Your task to perform on an android device: Add razer deathadder to the cart on newegg Image 0: 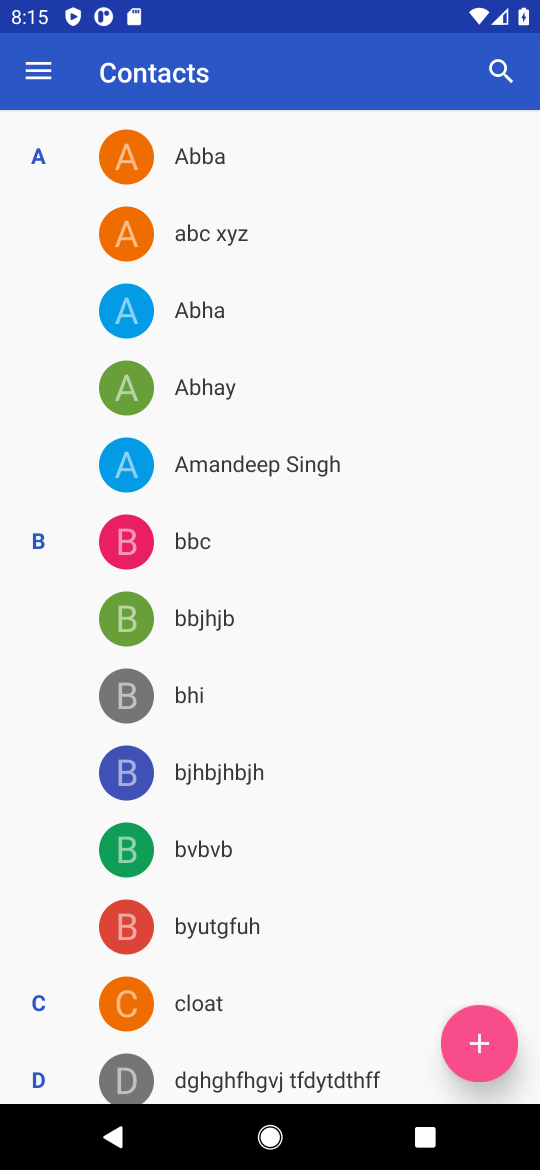
Step 0: press home button
Your task to perform on an android device: Add razer deathadder to the cart on newegg Image 1: 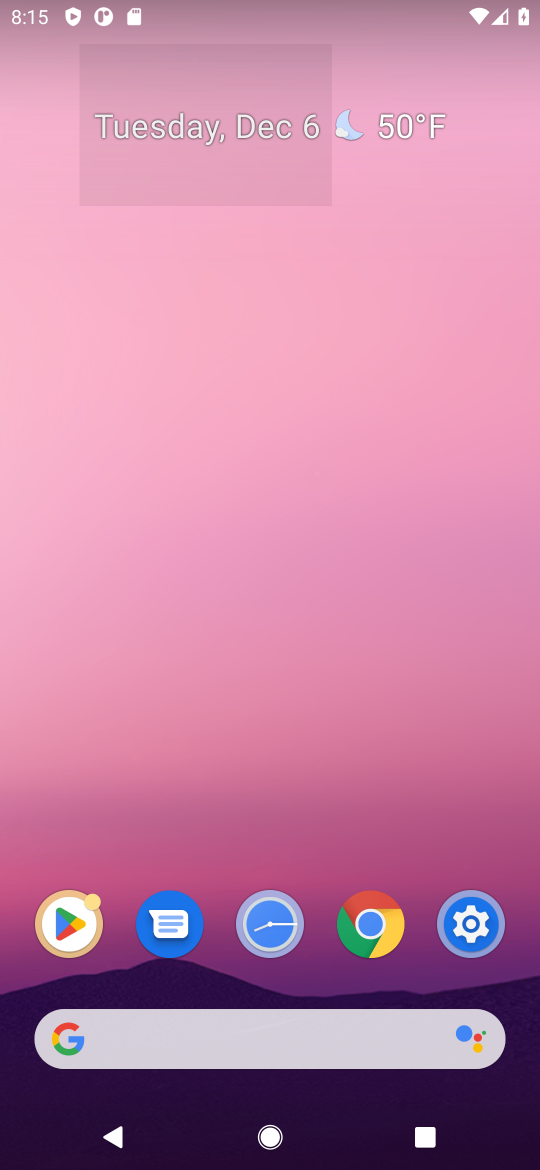
Step 1: click (217, 1042)
Your task to perform on an android device: Add razer deathadder to the cart on newegg Image 2: 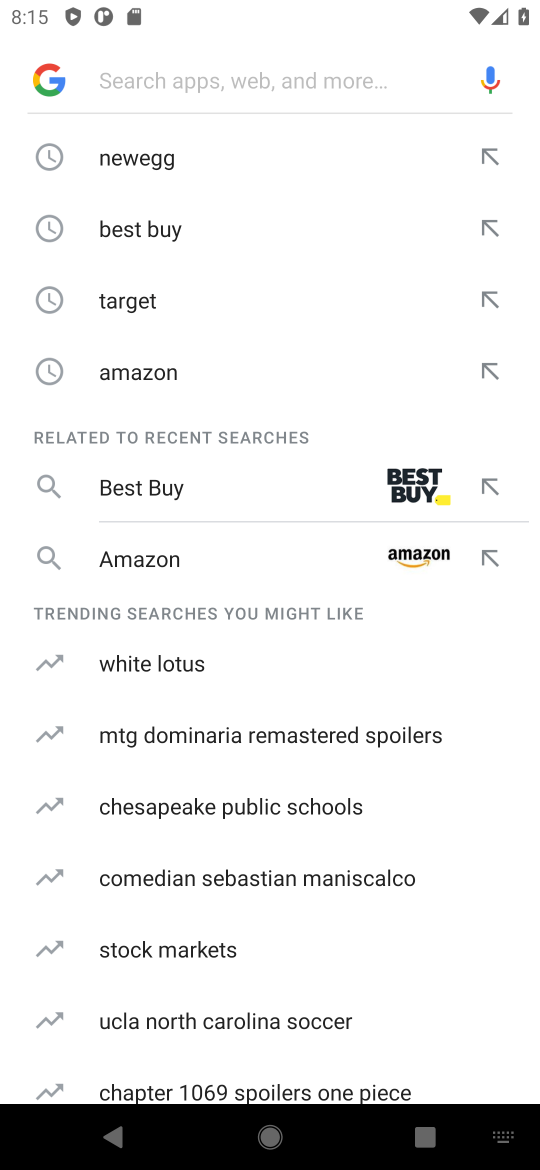
Step 2: type "newegg"
Your task to perform on an android device: Add razer deathadder to the cart on newegg Image 3: 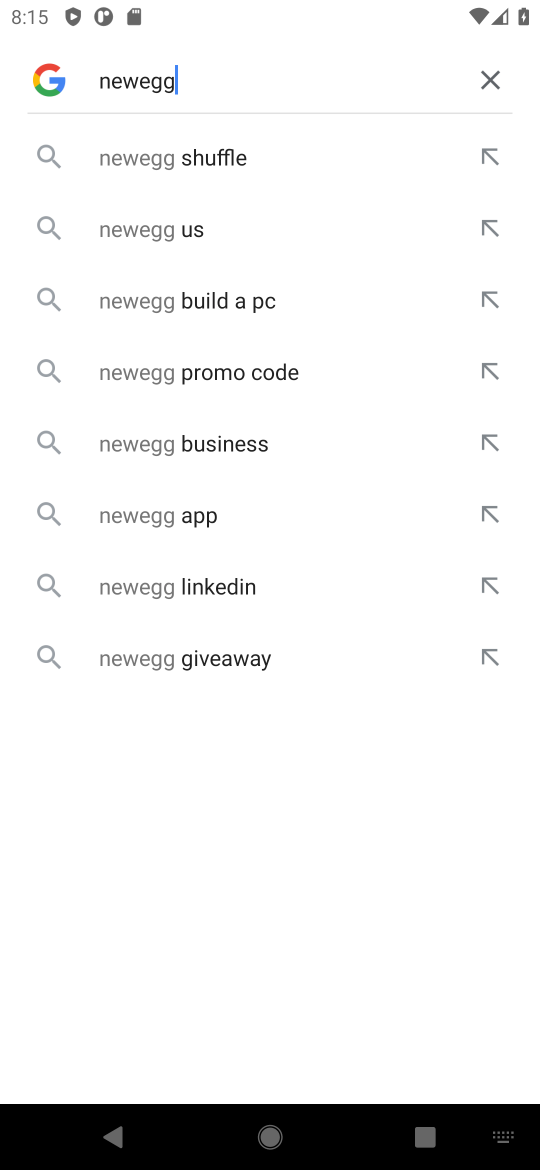
Step 3: click (208, 178)
Your task to perform on an android device: Add razer deathadder to the cart on newegg Image 4: 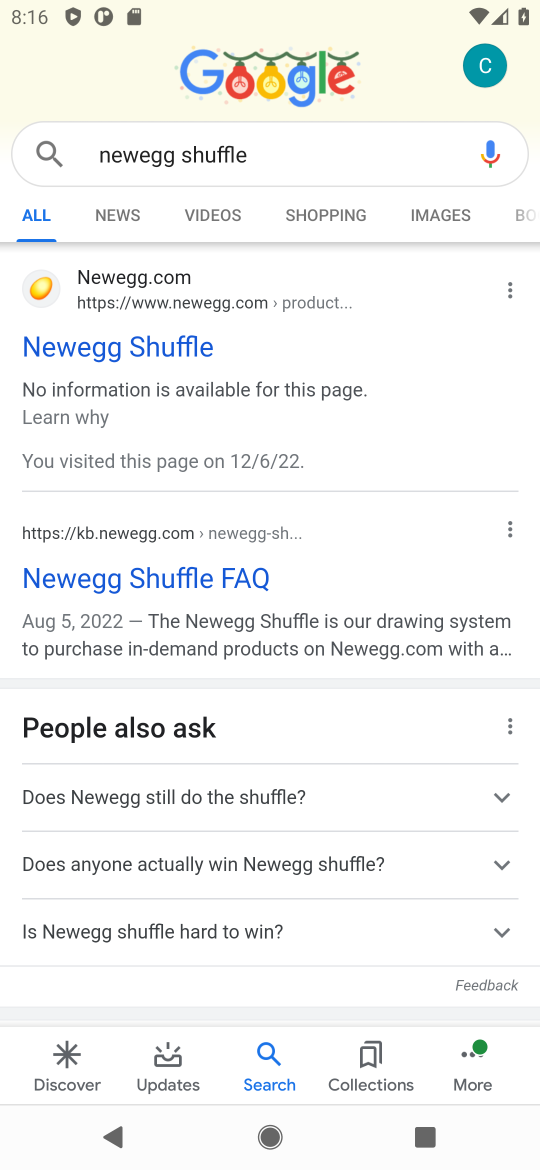
Step 4: click (107, 344)
Your task to perform on an android device: Add razer deathadder to the cart on newegg Image 5: 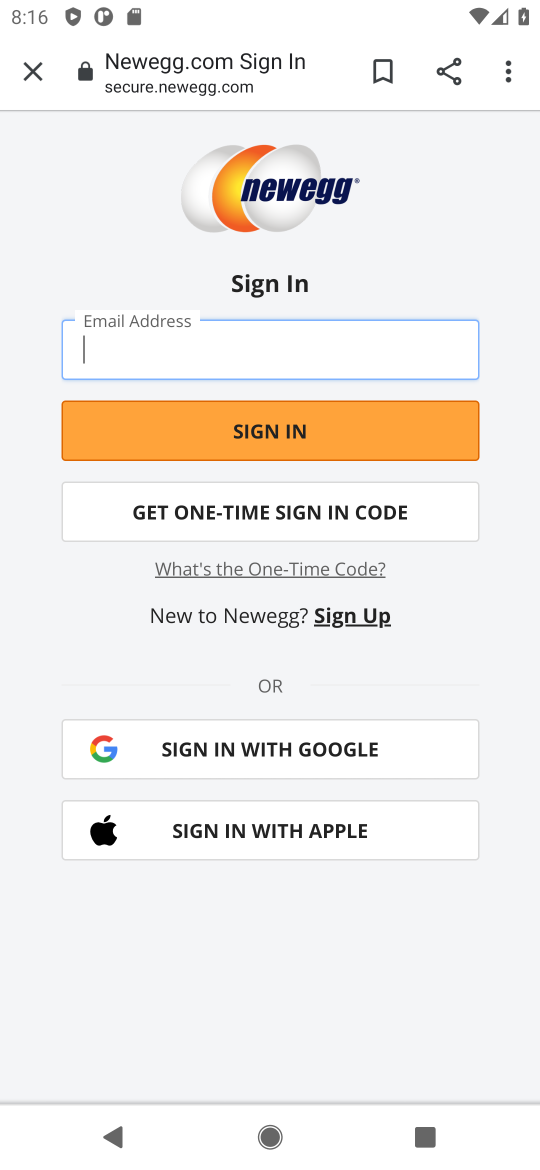
Step 5: task complete